Your task to perform on an android device: Go to Amazon Image 0: 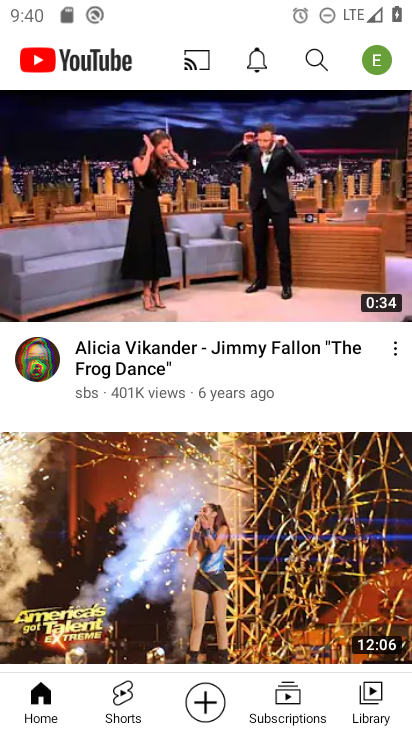
Step 0: press home button
Your task to perform on an android device: Go to Amazon Image 1: 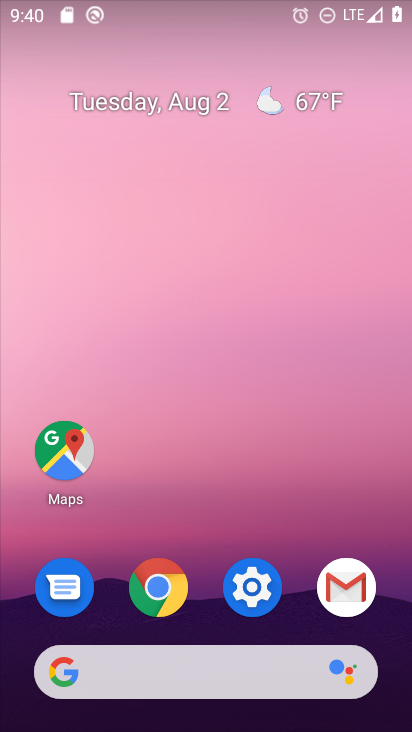
Step 1: click (162, 601)
Your task to perform on an android device: Go to Amazon Image 2: 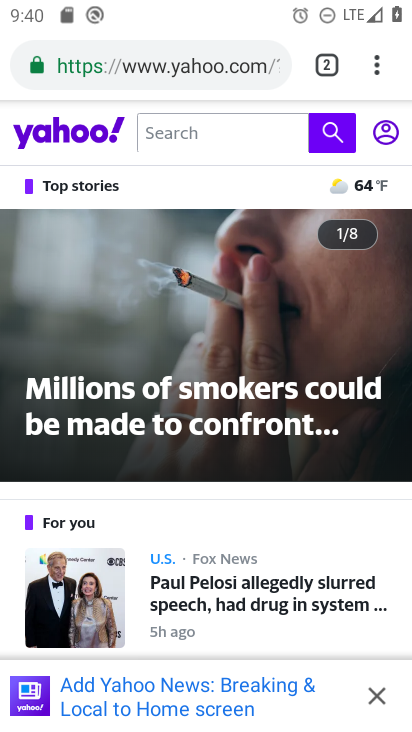
Step 2: click (328, 70)
Your task to perform on an android device: Go to Amazon Image 3: 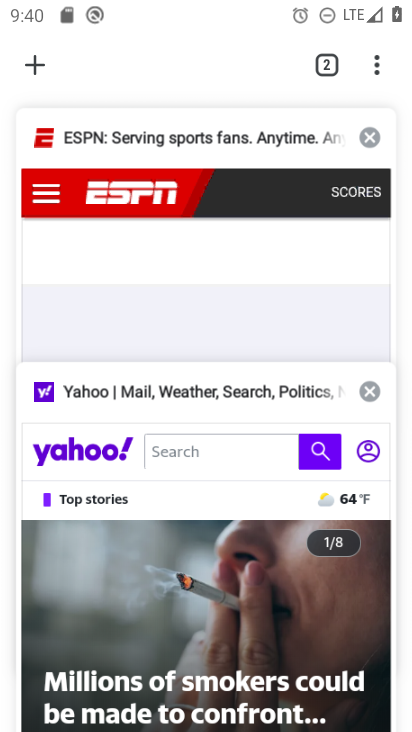
Step 3: click (44, 67)
Your task to perform on an android device: Go to Amazon Image 4: 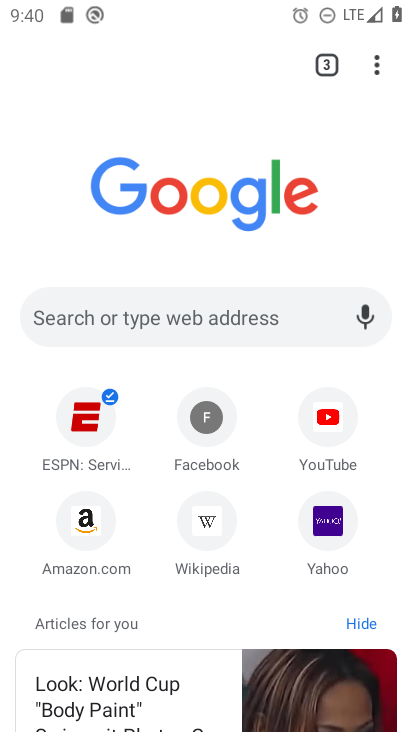
Step 4: click (80, 523)
Your task to perform on an android device: Go to Amazon Image 5: 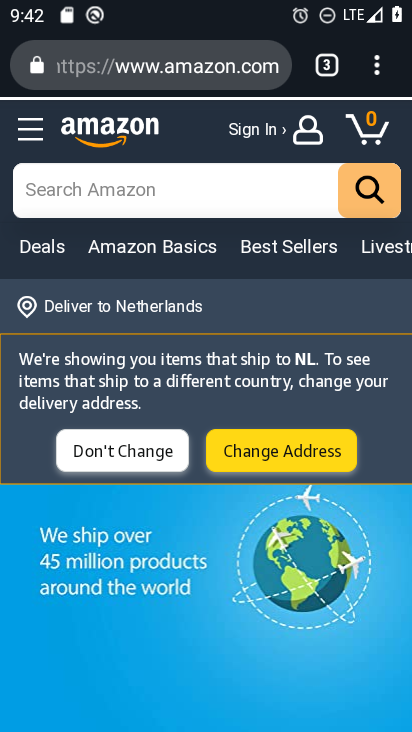
Step 5: task complete